Your task to perform on an android device: What is the news today? Image 0: 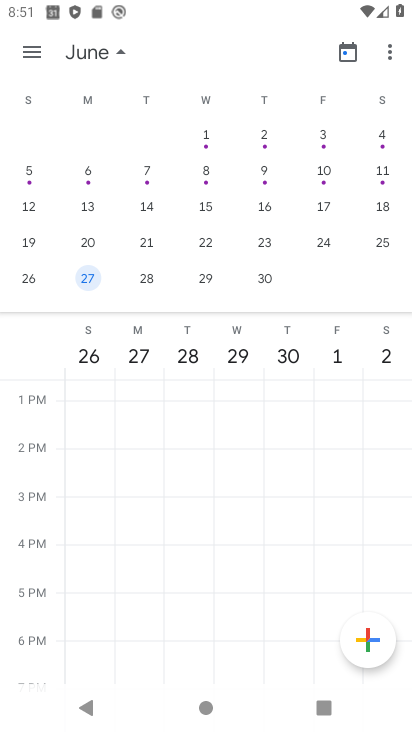
Step 0: press home button
Your task to perform on an android device: What is the news today? Image 1: 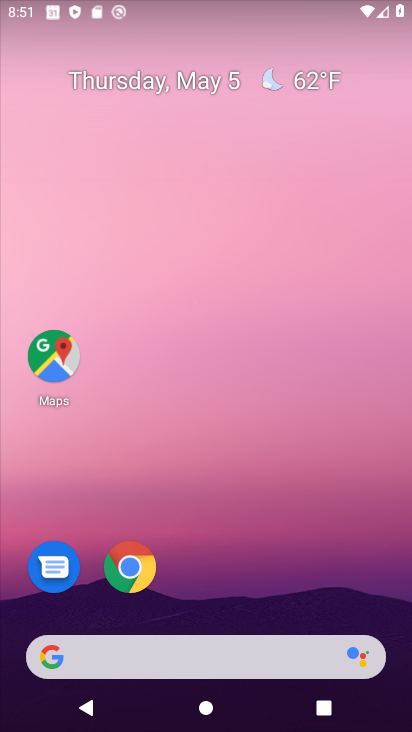
Step 1: task complete